Your task to perform on an android device: uninstall "Speedtest by Ookla" Image 0: 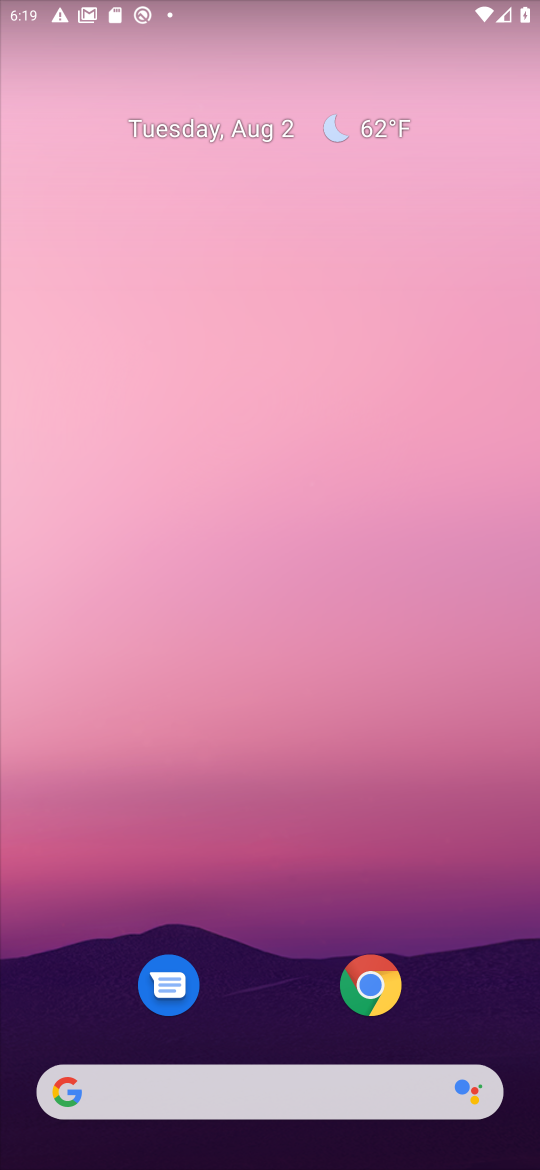
Step 0: drag from (269, 974) to (254, 355)
Your task to perform on an android device: uninstall "Speedtest by Ookla" Image 1: 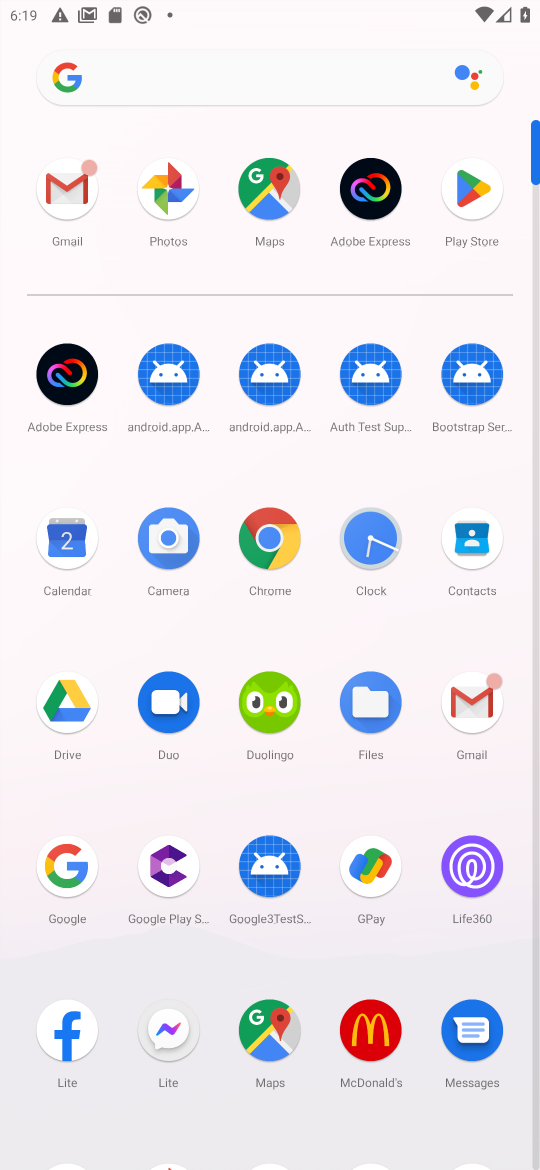
Step 1: click (468, 193)
Your task to perform on an android device: uninstall "Speedtest by Ookla" Image 2: 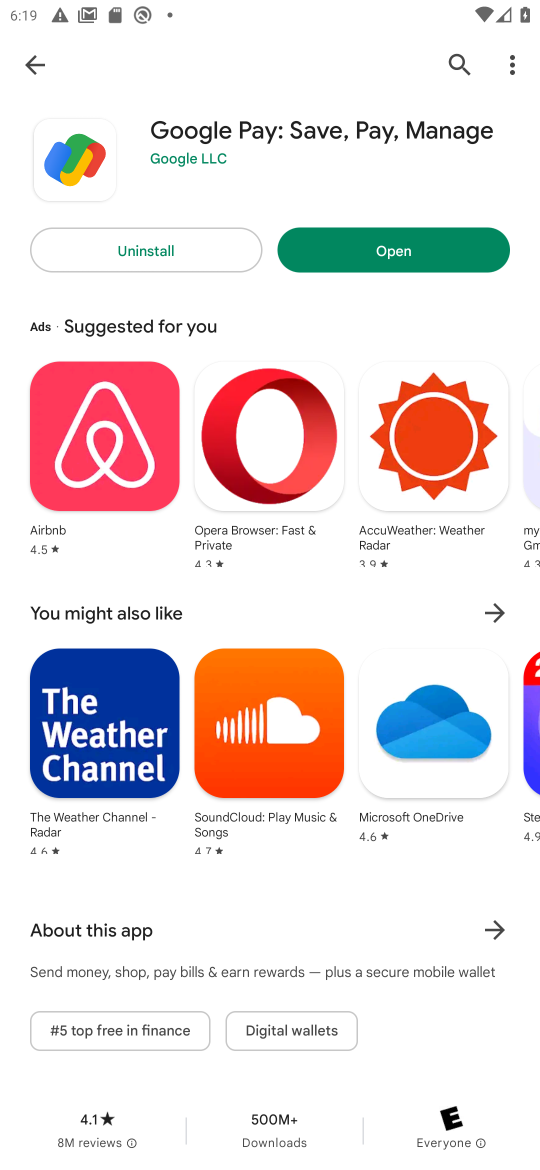
Step 2: click (440, 69)
Your task to perform on an android device: uninstall "Speedtest by Ookla" Image 3: 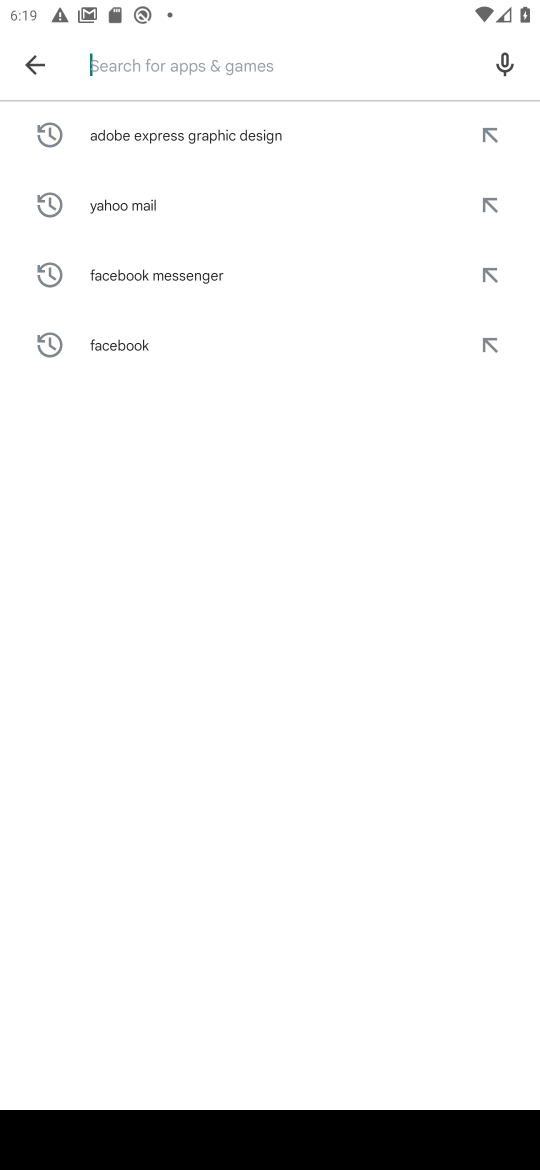
Step 3: type "Speedtest by Ookla"
Your task to perform on an android device: uninstall "Speedtest by Ookla" Image 4: 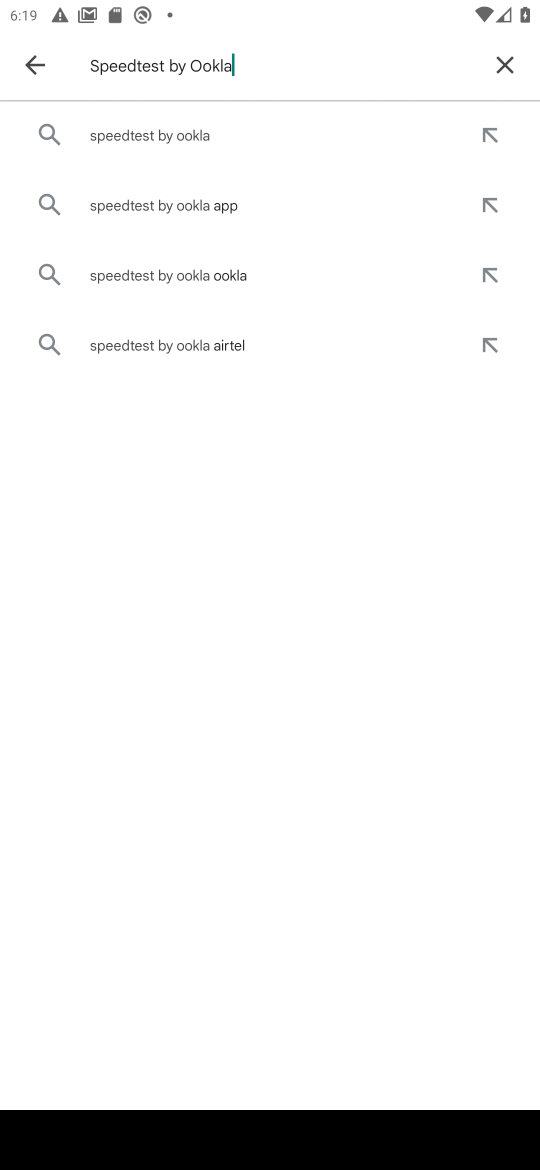
Step 4: type ""
Your task to perform on an android device: uninstall "Speedtest by Ookla" Image 5: 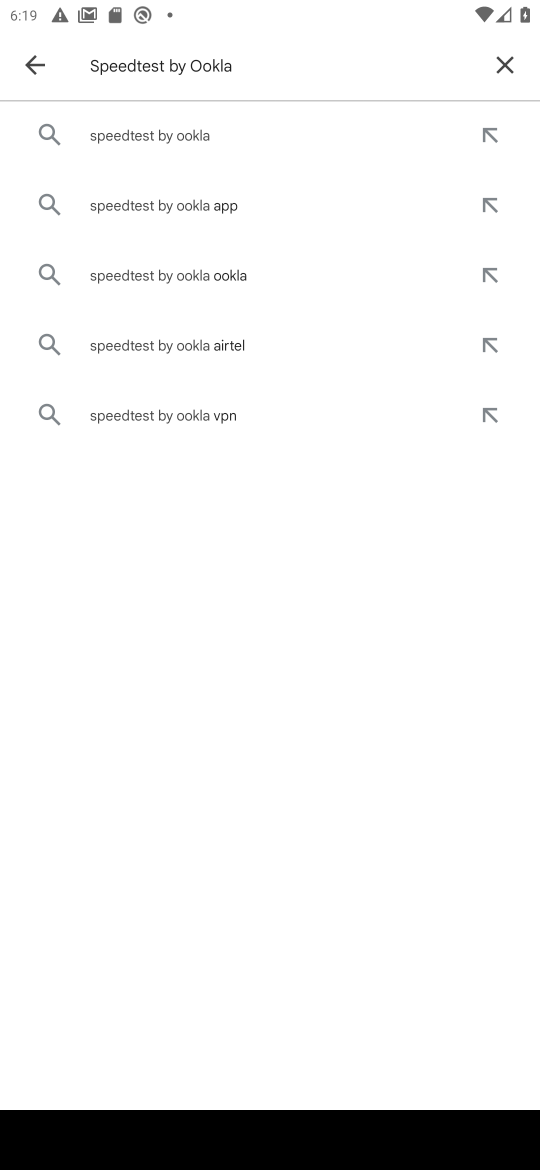
Step 5: click (197, 132)
Your task to perform on an android device: uninstall "Speedtest by Ookla" Image 6: 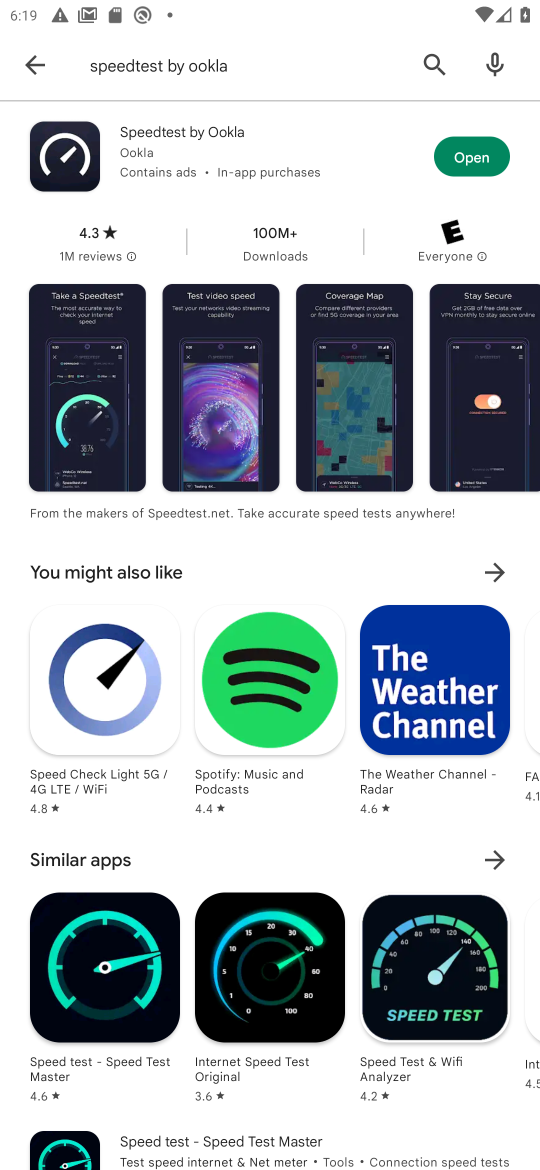
Step 6: click (280, 163)
Your task to perform on an android device: uninstall "Speedtest by Ookla" Image 7: 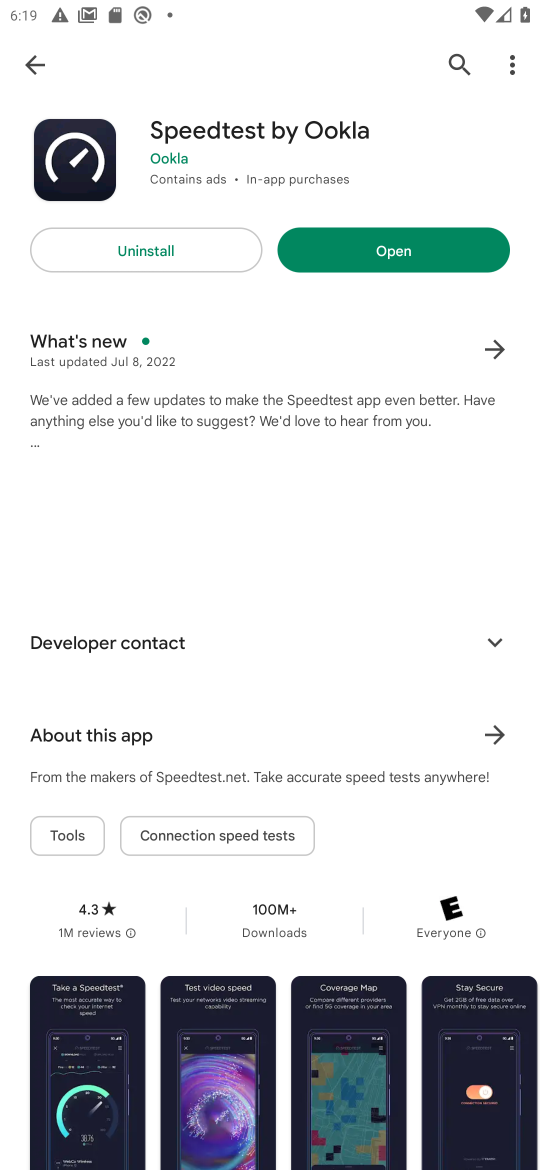
Step 7: click (156, 248)
Your task to perform on an android device: uninstall "Speedtest by Ookla" Image 8: 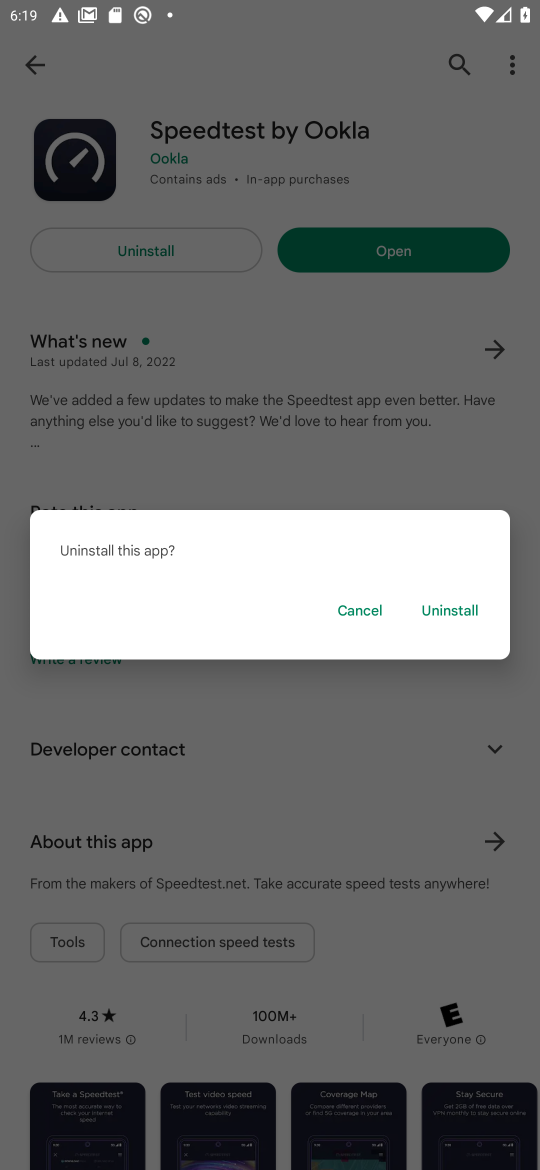
Step 8: click (431, 601)
Your task to perform on an android device: uninstall "Speedtest by Ookla" Image 9: 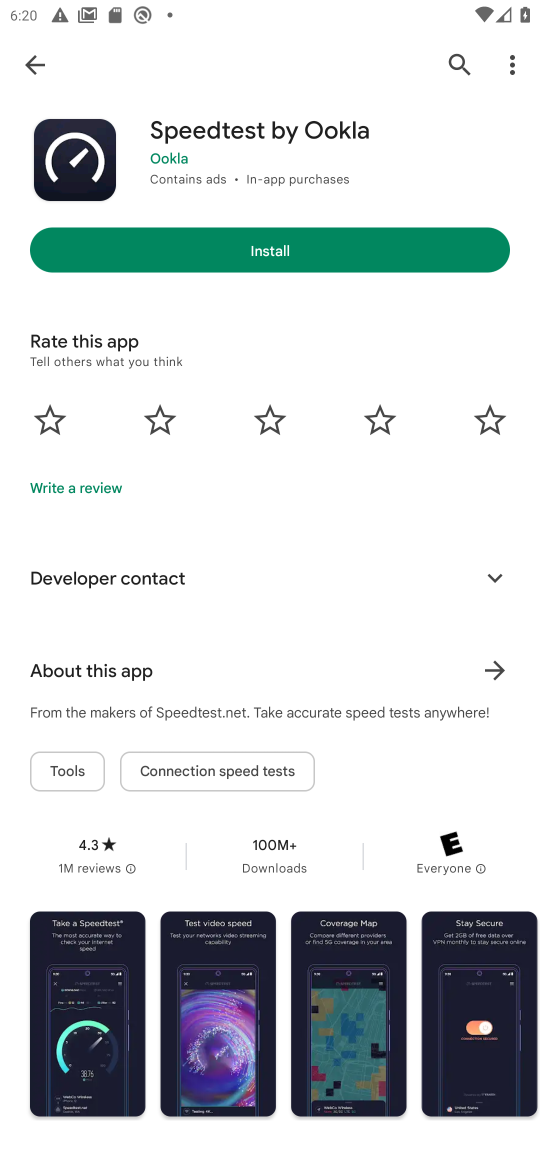
Step 9: task complete